Your task to perform on an android device: Search for sushi restaurants on Maps Image 0: 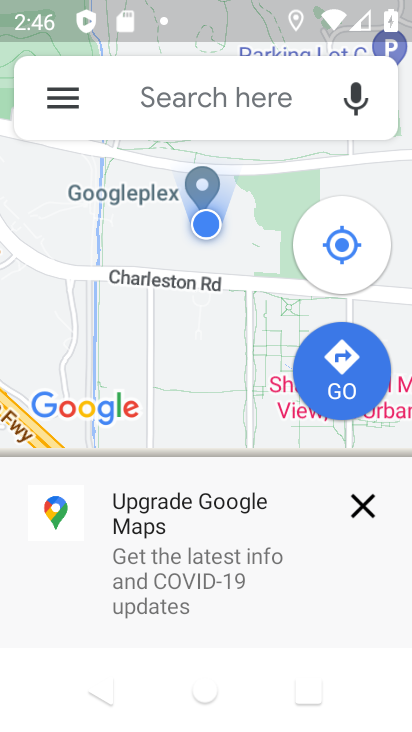
Step 0: click (189, 99)
Your task to perform on an android device: Search for sushi restaurants on Maps Image 1: 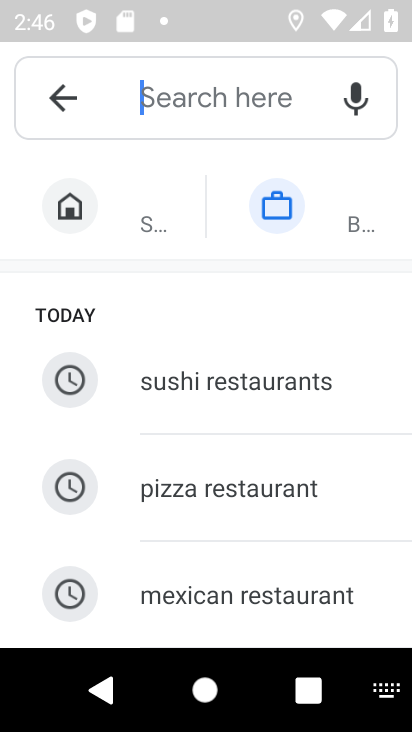
Step 1: click (248, 398)
Your task to perform on an android device: Search for sushi restaurants on Maps Image 2: 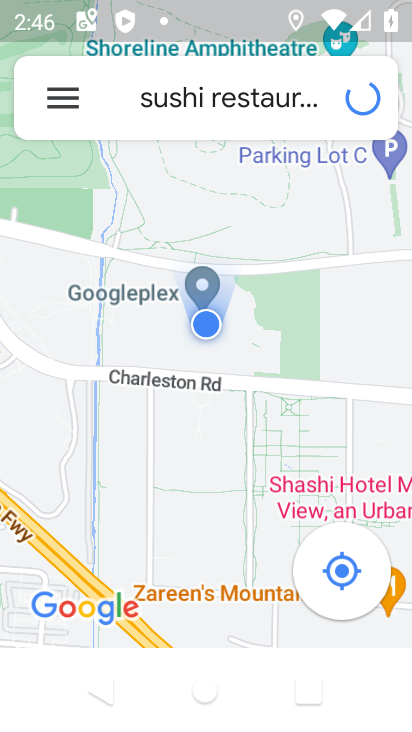
Step 2: task complete